Your task to perform on an android device: turn on translation in the chrome app Image 0: 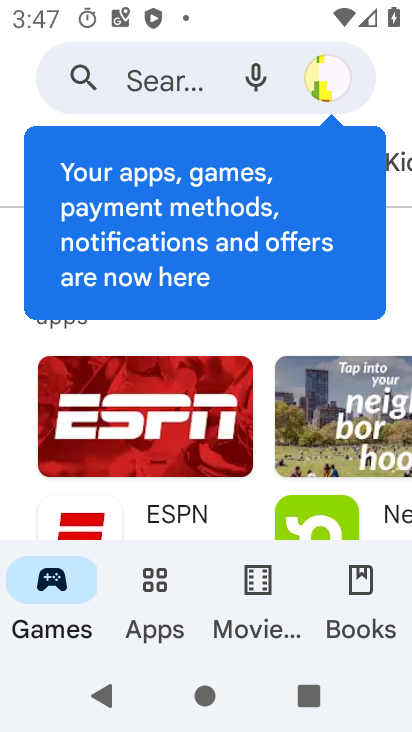
Step 0: press home button
Your task to perform on an android device: turn on translation in the chrome app Image 1: 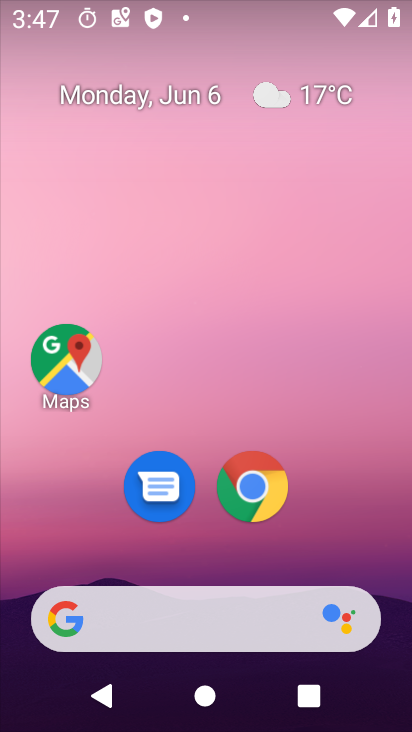
Step 1: click (250, 492)
Your task to perform on an android device: turn on translation in the chrome app Image 2: 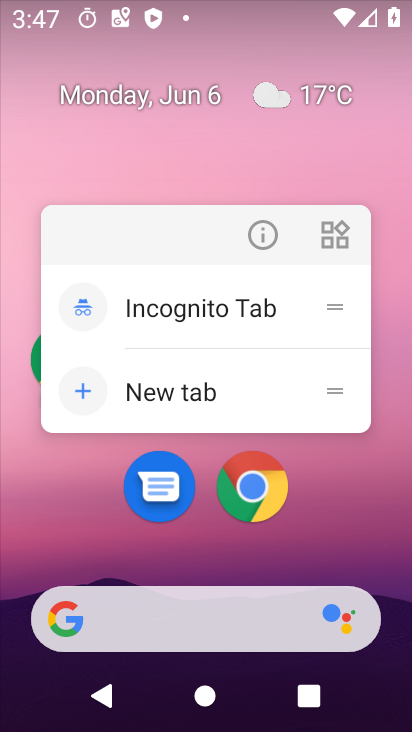
Step 2: click (250, 492)
Your task to perform on an android device: turn on translation in the chrome app Image 3: 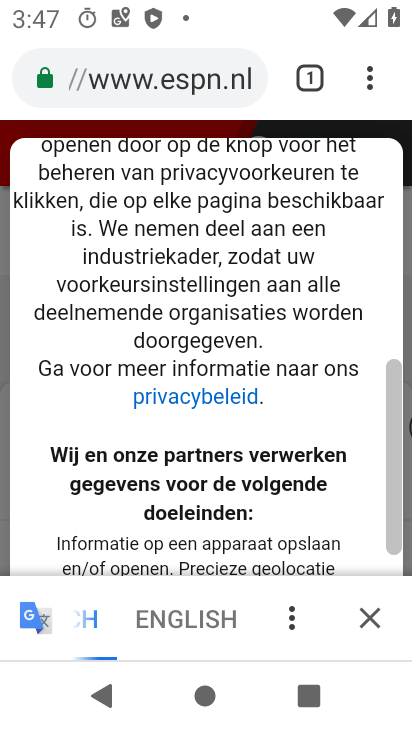
Step 3: drag from (367, 75) to (139, 543)
Your task to perform on an android device: turn on translation in the chrome app Image 4: 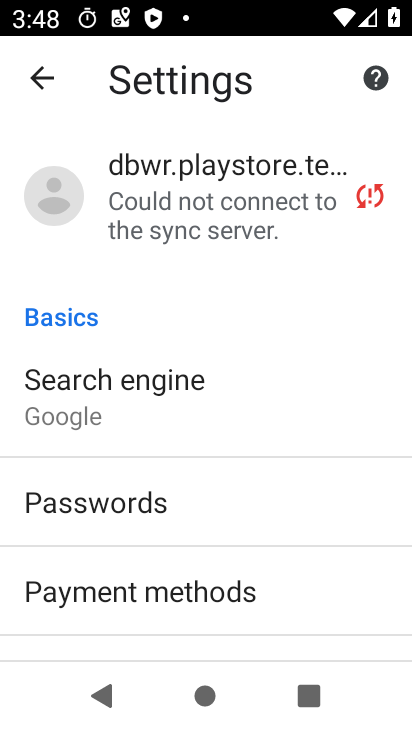
Step 4: drag from (287, 550) to (271, 135)
Your task to perform on an android device: turn on translation in the chrome app Image 5: 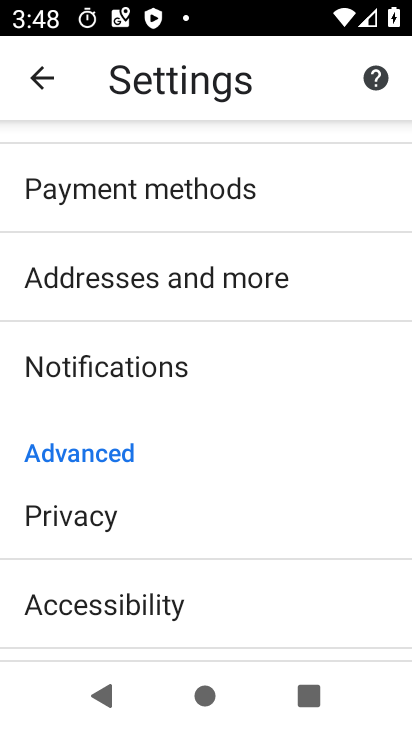
Step 5: drag from (276, 580) to (256, 179)
Your task to perform on an android device: turn on translation in the chrome app Image 6: 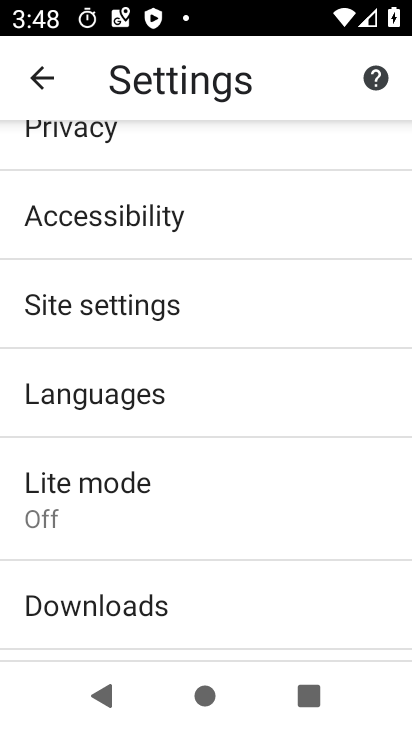
Step 6: drag from (228, 564) to (251, 227)
Your task to perform on an android device: turn on translation in the chrome app Image 7: 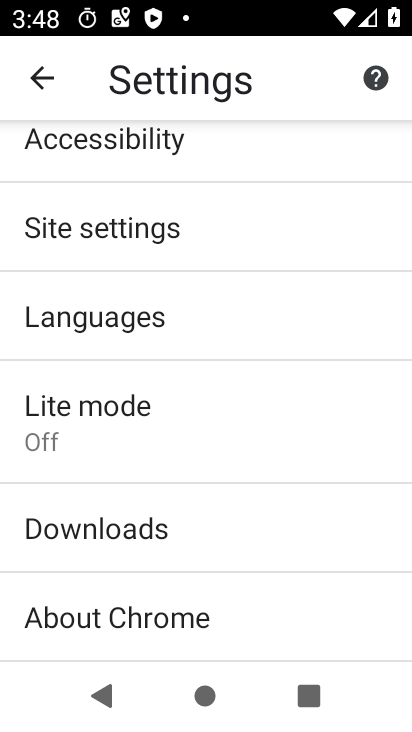
Step 7: click (191, 306)
Your task to perform on an android device: turn on translation in the chrome app Image 8: 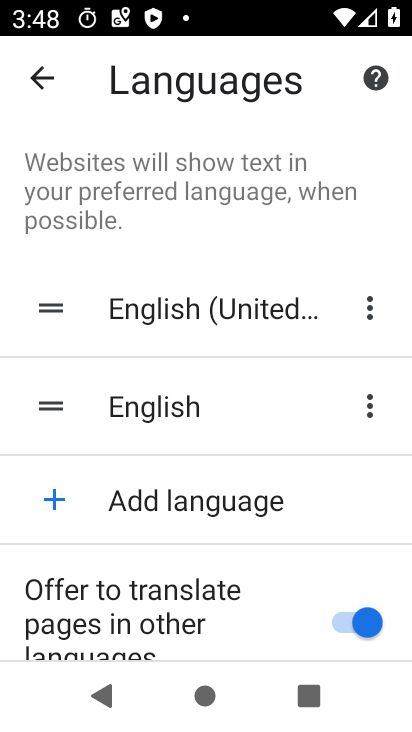
Step 8: task complete